Your task to perform on an android device: Open calendar and show me the first week of next month Image 0: 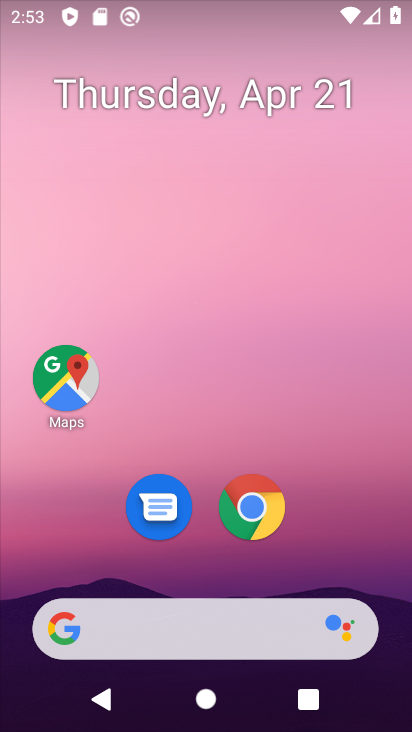
Step 0: drag from (314, 576) to (325, 147)
Your task to perform on an android device: Open calendar and show me the first week of next month Image 1: 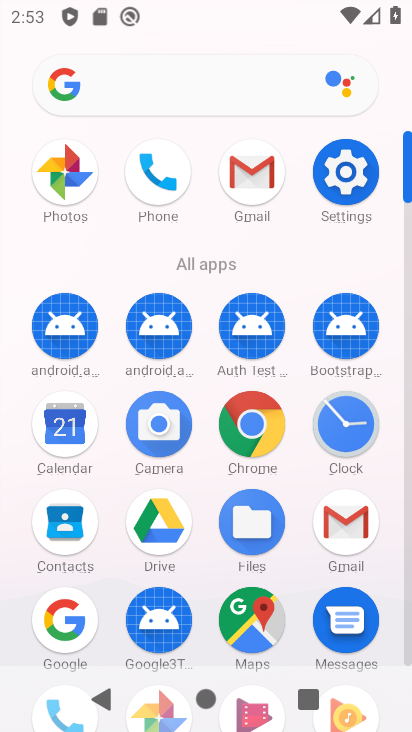
Step 1: click (61, 453)
Your task to perform on an android device: Open calendar and show me the first week of next month Image 2: 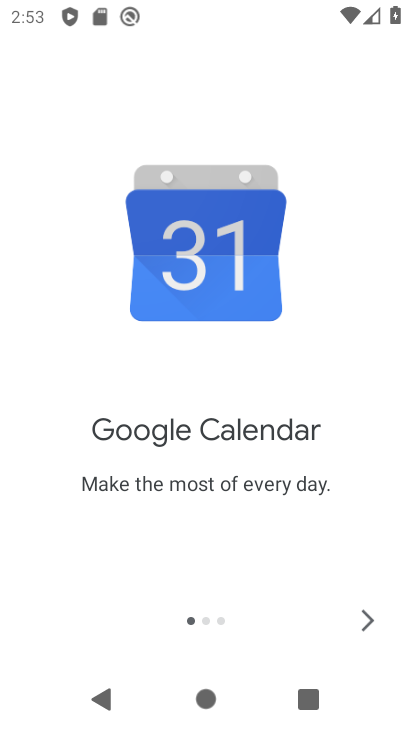
Step 2: click (353, 631)
Your task to perform on an android device: Open calendar and show me the first week of next month Image 3: 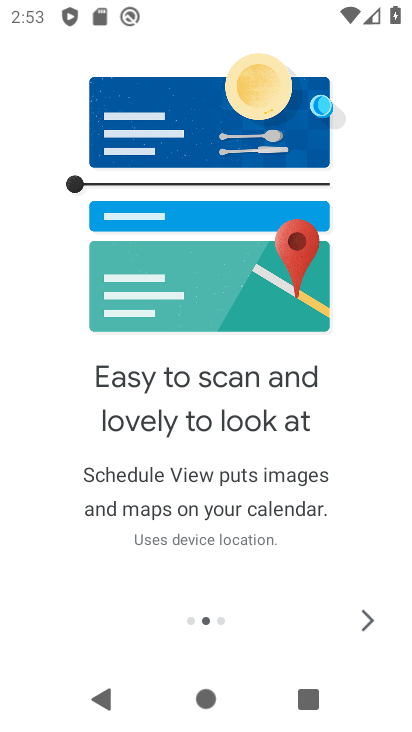
Step 3: click (353, 631)
Your task to perform on an android device: Open calendar and show me the first week of next month Image 4: 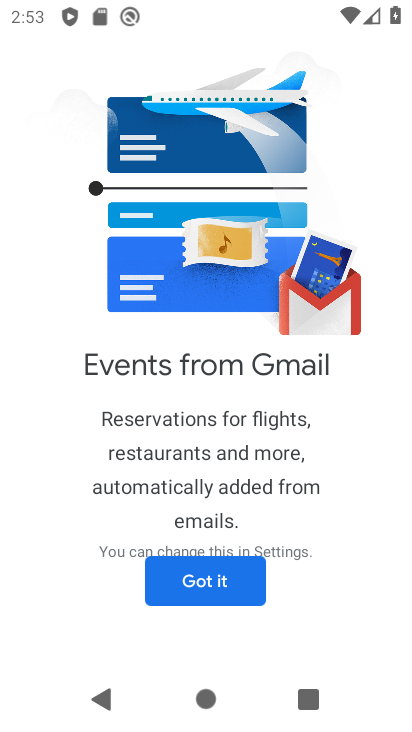
Step 4: click (353, 631)
Your task to perform on an android device: Open calendar and show me the first week of next month Image 5: 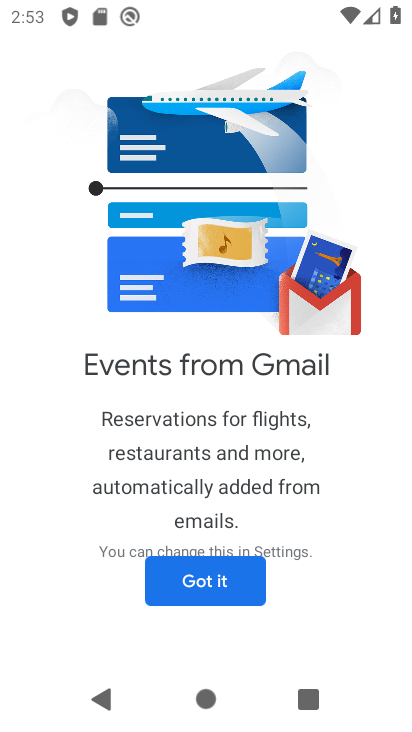
Step 5: click (175, 583)
Your task to perform on an android device: Open calendar and show me the first week of next month Image 6: 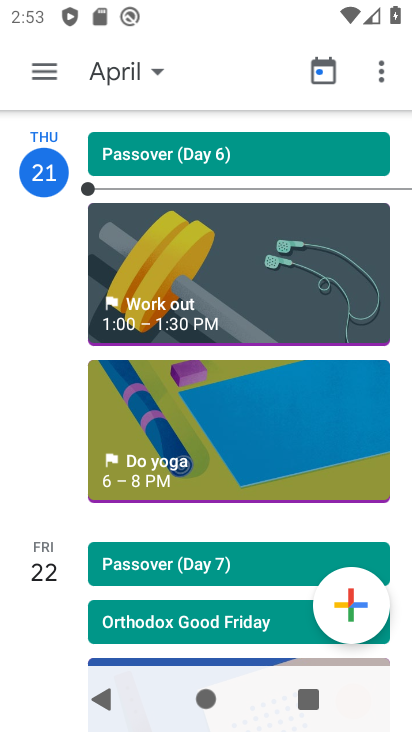
Step 6: click (136, 72)
Your task to perform on an android device: Open calendar and show me the first week of next month Image 7: 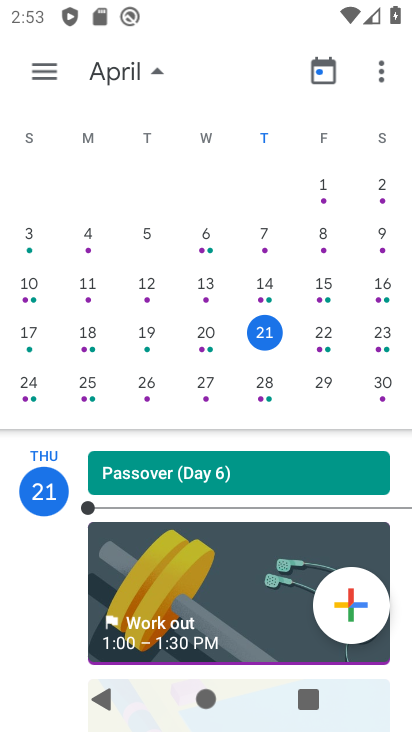
Step 7: drag from (350, 311) to (0, 269)
Your task to perform on an android device: Open calendar and show me the first week of next month Image 8: 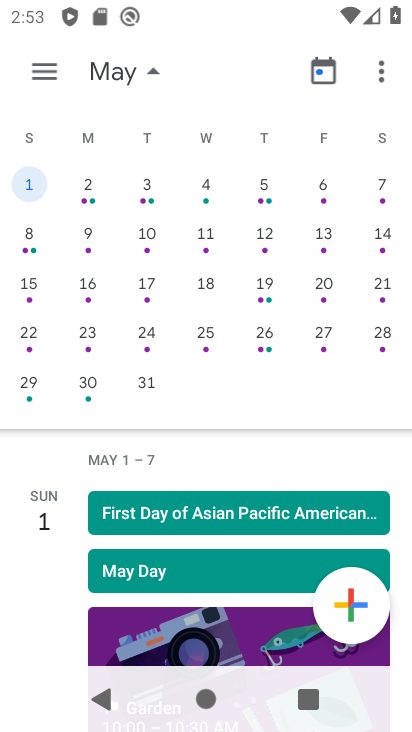
Step 8: click (85, 193)
Your task to perform on an android device: Open calendar and show me the first week of next month Image 9: 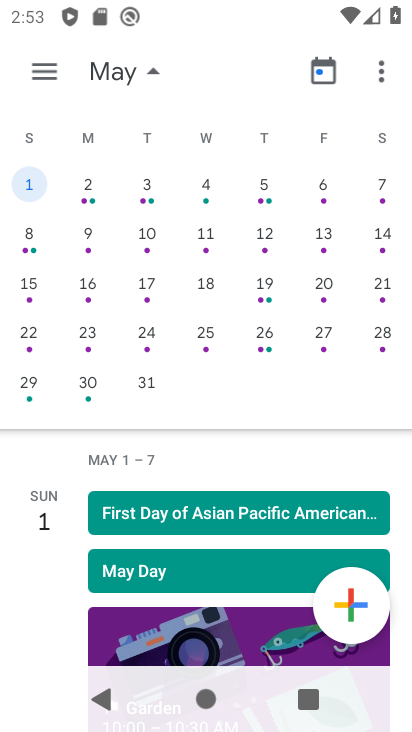
Step 9: click (149, 202)
Your task to perform on an android device: Open calendar and show me the first week of next month Image 10: 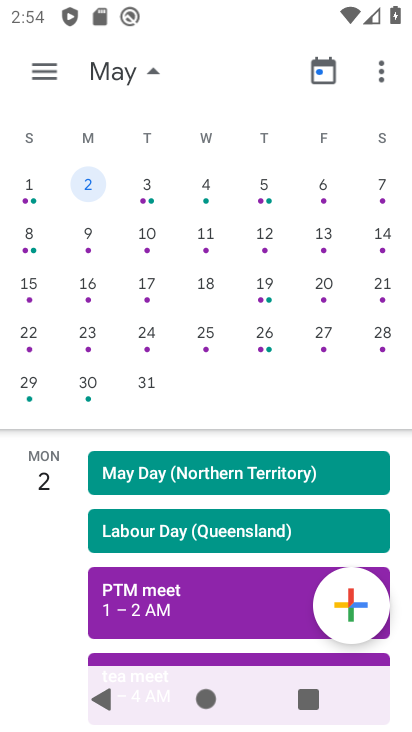
Step 10: click (206, 197)
Your task to perform on an android device: Open calendar and show me the first week of next month Image 11: 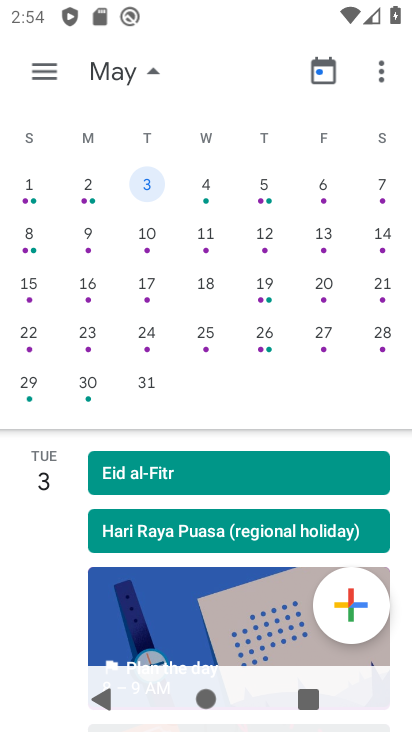
Step 11: click (271, 197)
Your task to perform on an android device: Open calendar and show me the first week of next month Image 12: 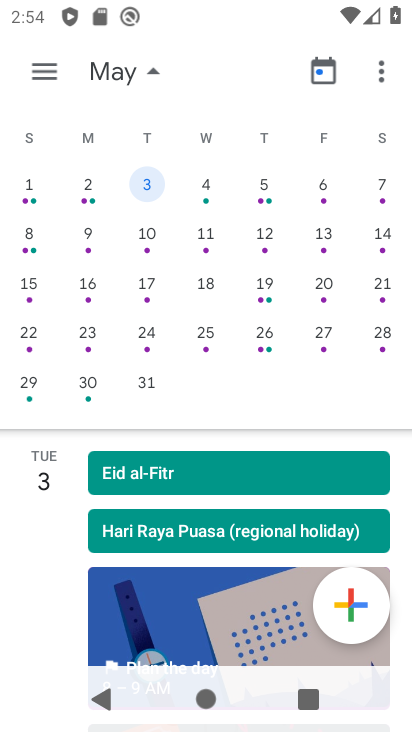
Step 12: click (301, 196)
Your task to perform on an android device: Open calendar and show me the first week of next month Image 13: 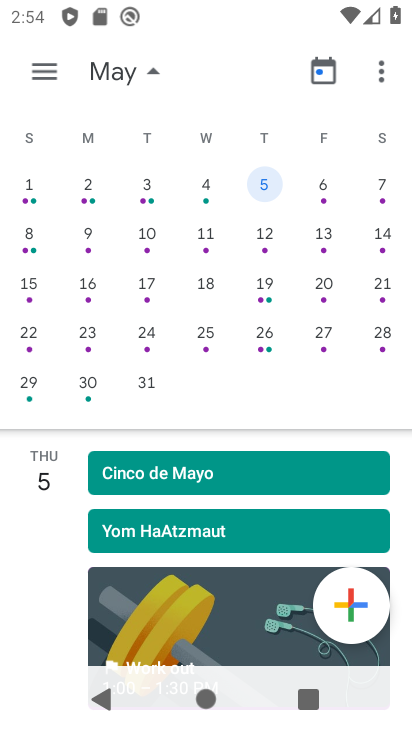
Step 13: click (386, 201)
Your task to perform on an android device: Open calendar and show me the first week of next month Image 14: 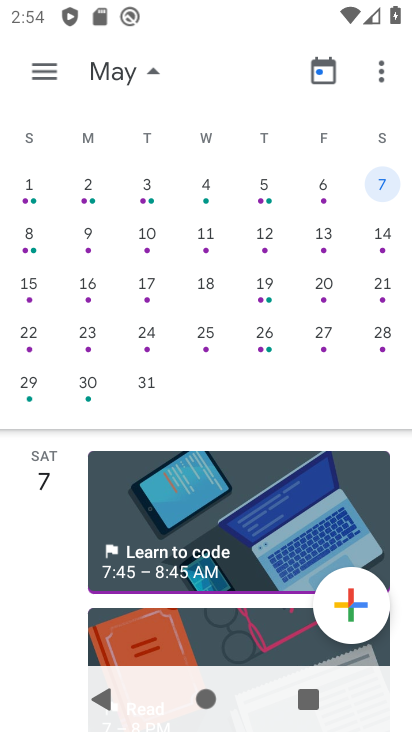
Step 14: task complete